Your task to perform on an android device: Go to internet settings Image 0: 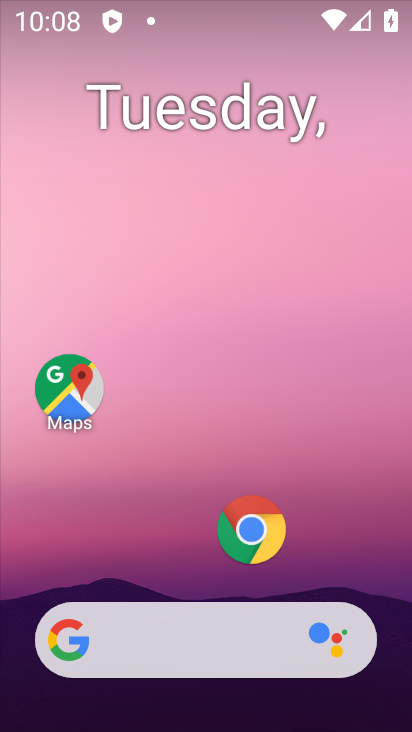
Step 0: drag from (132, 555) to (206, 0)
Your task to perform on an android device: Go to internet settings Image 1: 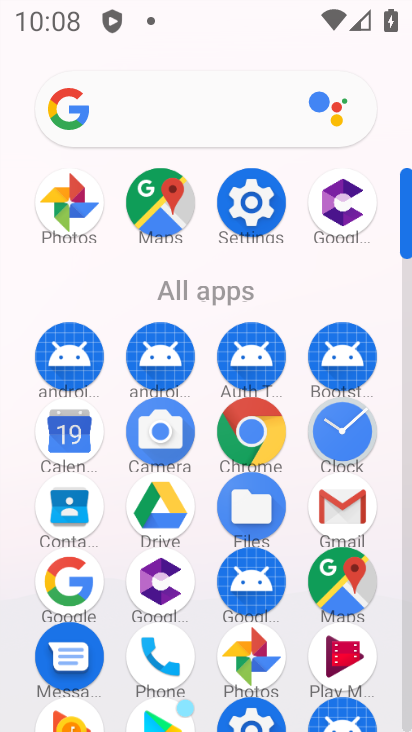
Step 1: click (256, 200)
Your task to perform on an android device: Go to internet settings Image 2: 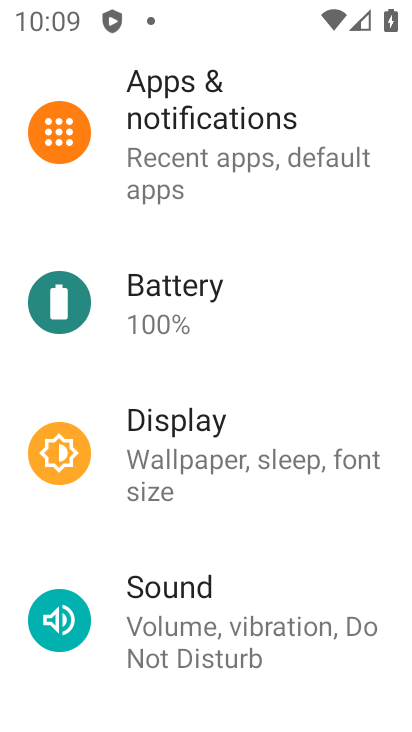
Step 2: drag from (203, 179) to (161, 622)
Your task to perform on an android device: Go to internet settings Image 3: 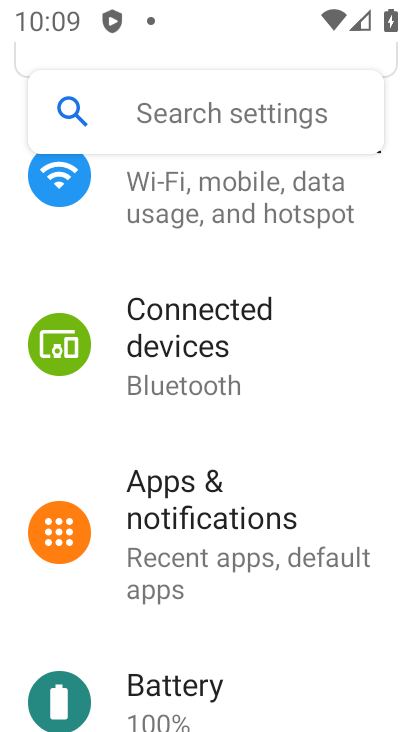
Step 3: drag from (225, 301) to (215, 540)
Your task to perform on an android device: Go to internet settings Image 4: 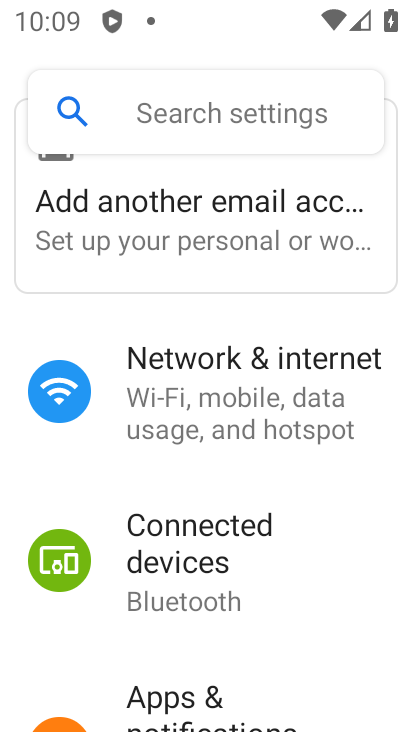
Step 4: click (254, 419)
Your task to perform on an android device: Go to internet settings Image 5: 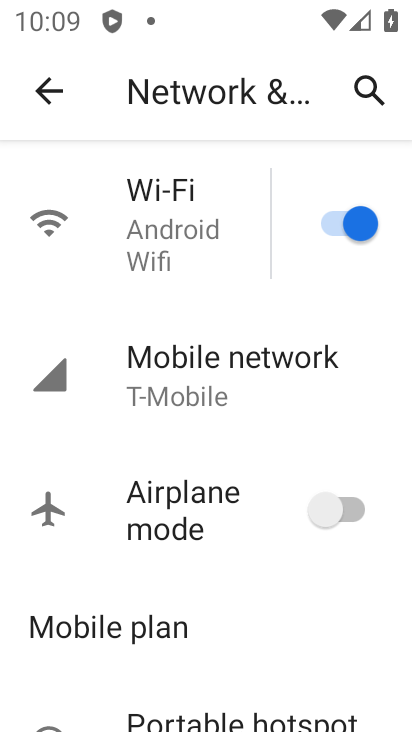
Step 5: click (182, 375)
Your task to perform on an android device: Go to internet settings Image 6: 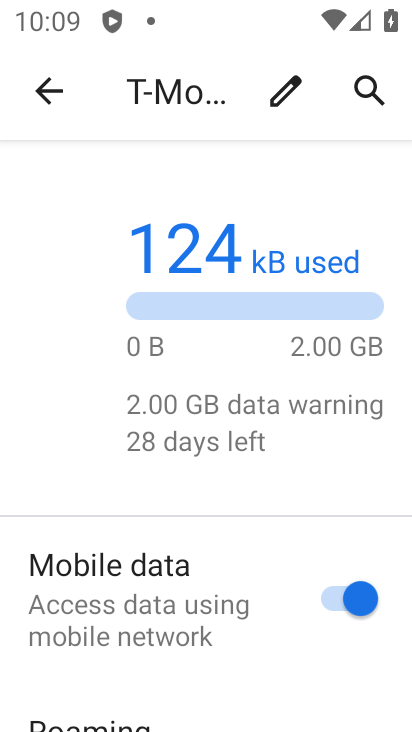
Step 6: task complete